Your task to perform on an android device: Open calendar and show me the third week of next month Image 0: 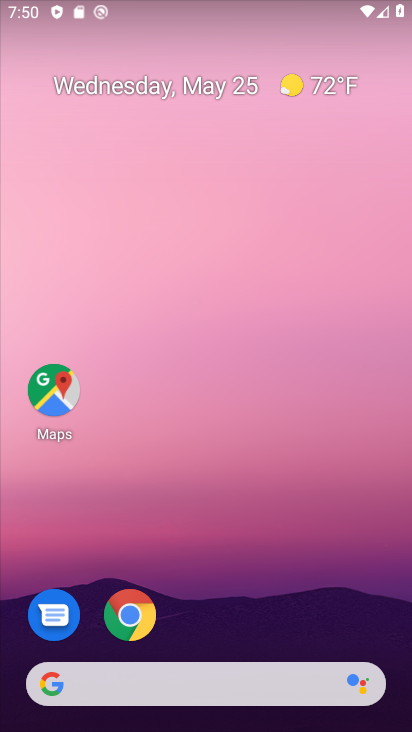
Step 0: drag from (263, 569) to (350, 25)
Your task to perform on an android device: Open calendar and show me the third week of next month Image 1: 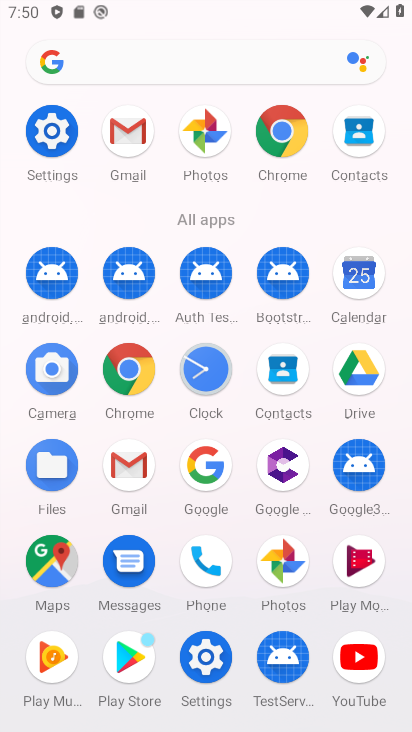
Step 1: click (354, 273)
Your task to perform on an android device: Open calendar and show me the third week of next month Image 2: 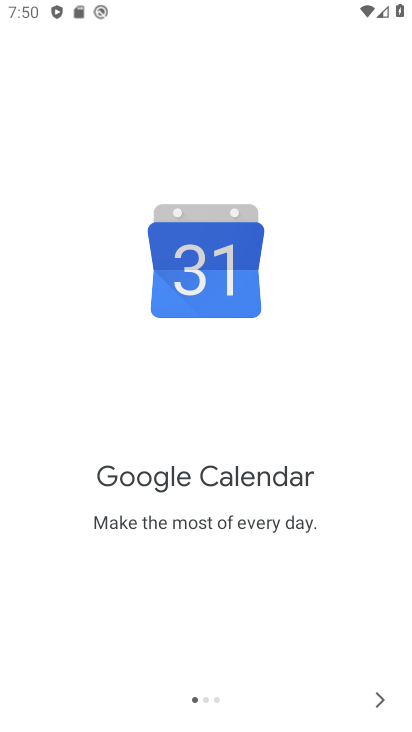
Step 2: click (379, 702)
Your task to perform on an android device: Open calendar and show me the third week of next month Image 3: 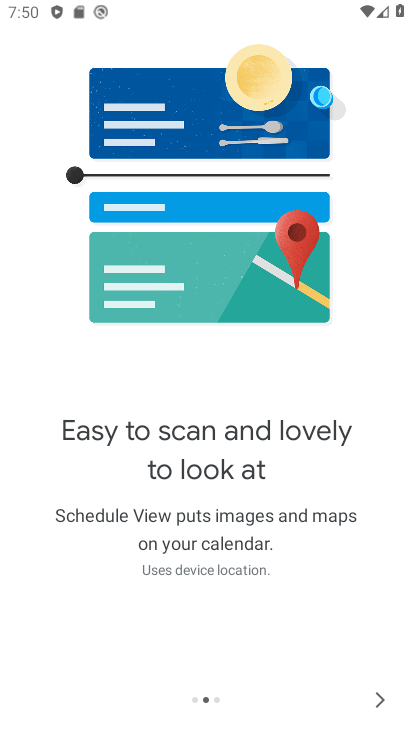
Step 3: click (379, 702)
Your task to perform on an android device: Open calendar and show me the third week of next month Image 4: 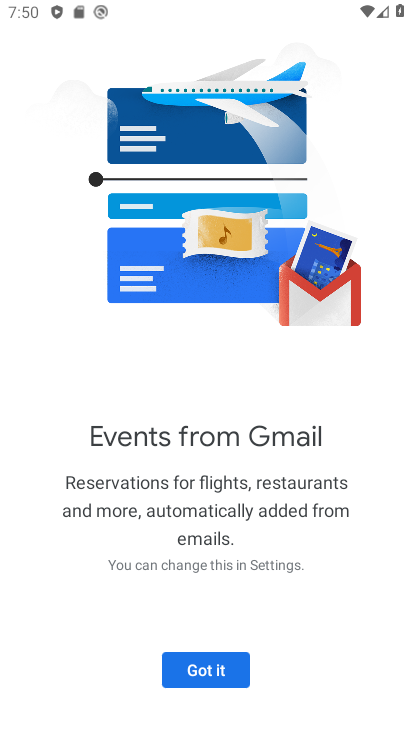
Step 4: click (241, 670)
Your task to perform on an android device: Open calendar and show me the third week of next month Image 5: 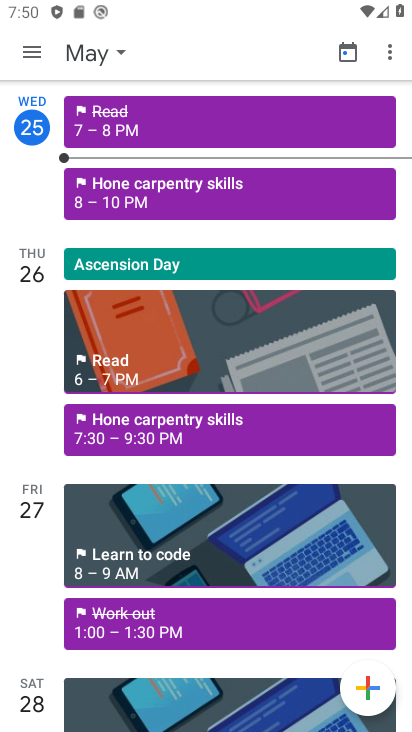
Step 5: click (36, 51)
Your task to perform on an android device: Open calendar and show me the third week of next month Image 6: 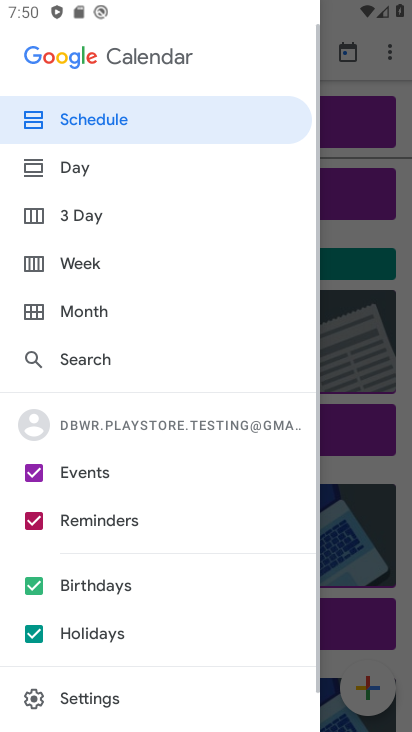
Step 6: click (29, 301)
Your task to perform on an android device: Open calendar and show me the third week of next month Image 7: 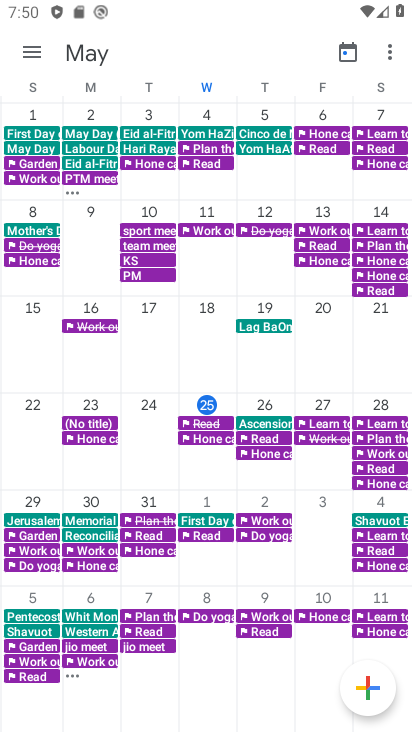
Step 7: drag from (380, 360) to (0, 409)
Your task to perform on an android device: Open calendar and show me the third week of next month Image 8: 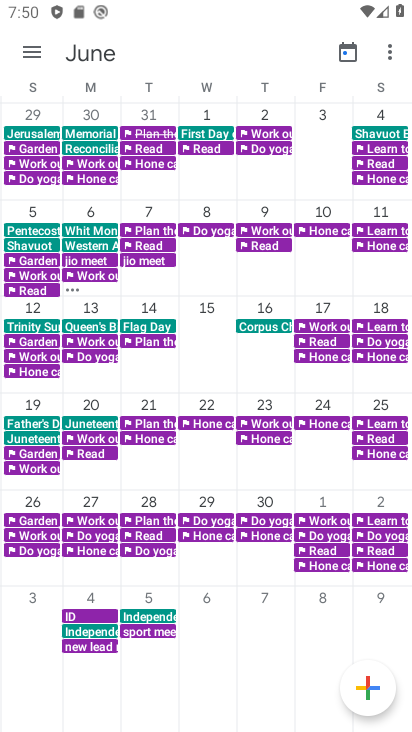
Step 8: click (34, 397)
Your task to perform on an android device: Open calendar and show me the third week of next month Image 9: 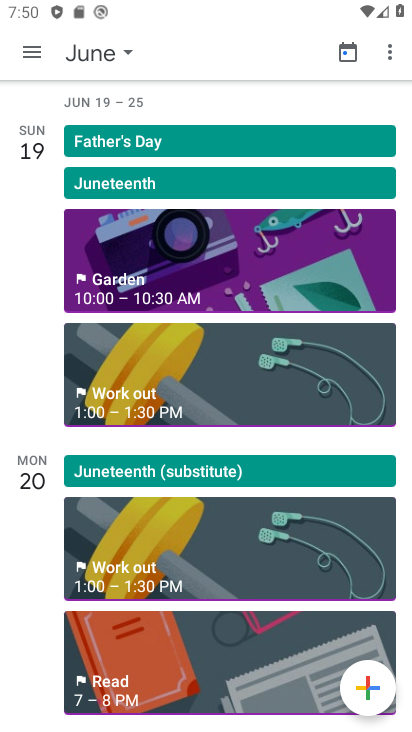
Step 9: click (28, 41)
Your task to perform on an android device: Open calendar and show me the third week of next month Image 10: 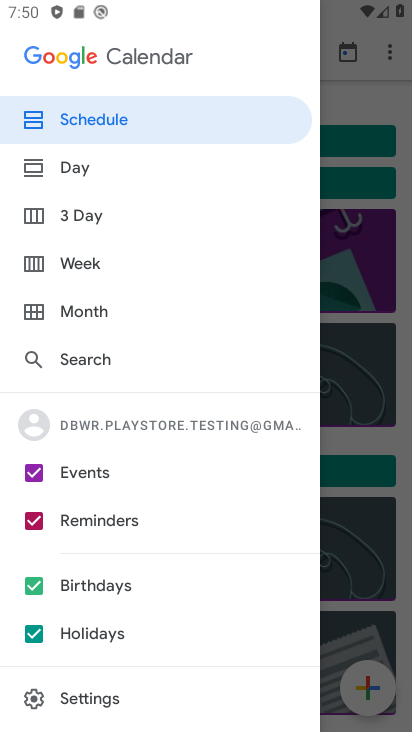
Step 10: click (71, 259)
Your task to perform on an android device: Open calendar and show me the third week of next month Image 11: 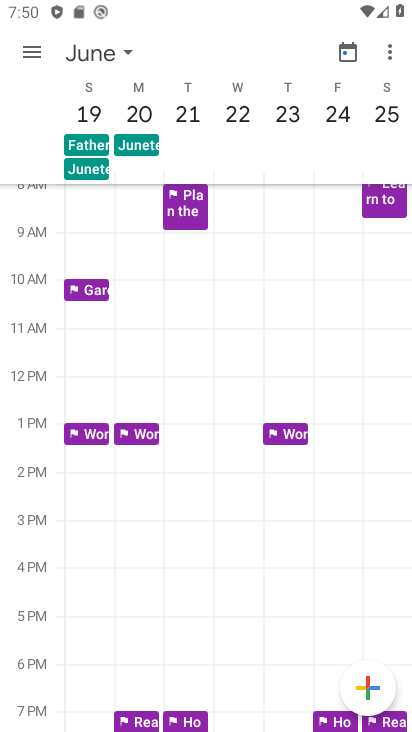
Step 11: task complete